Your task to perform on an android device: change keyboard looks Image 0: 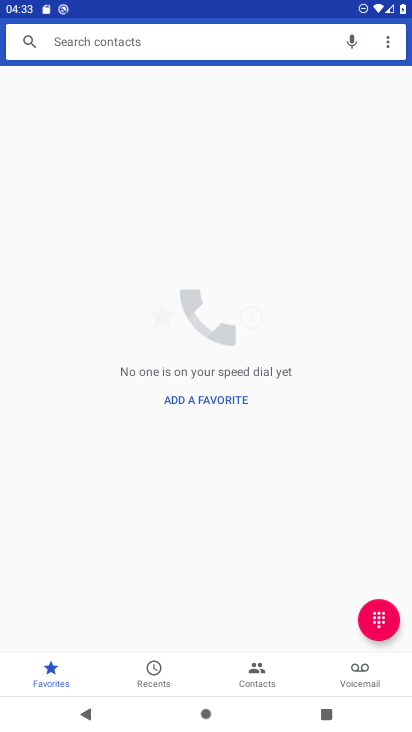
Step 0: press home button
Your task to perform on an android device: change keyboard looks Image 1: 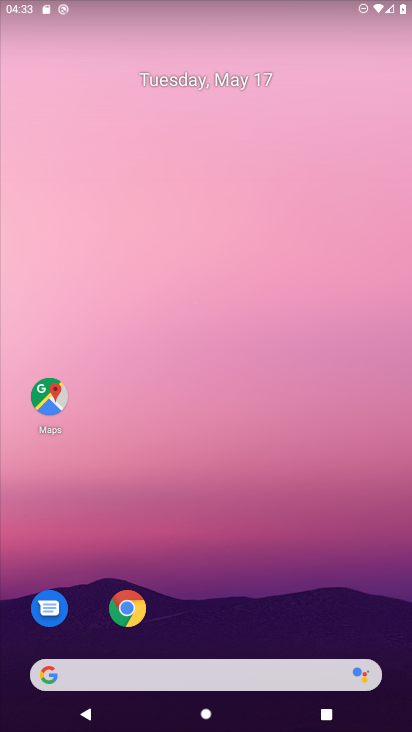
Step 1: drag from (156, 654) to (286, 88)
Your task to perform on an android device: change keyboard looks Image 2: 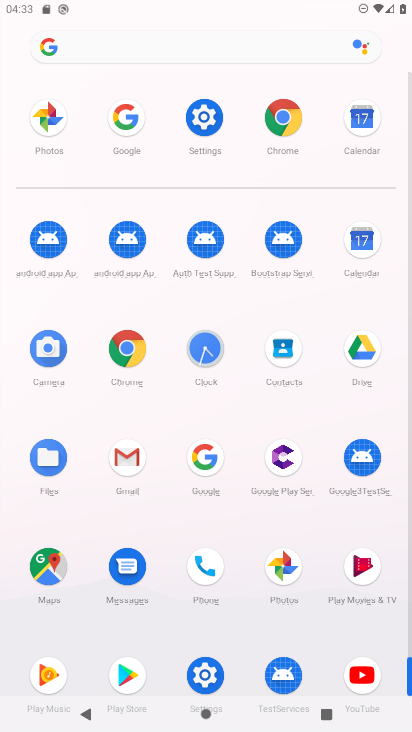
Step 2: click (206, 120)
Your task to perform on an android device: change keyboard looks Image 3: 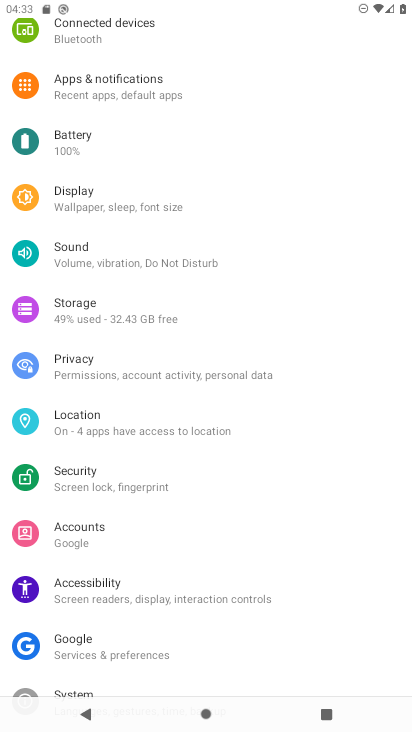
Step 3: drag from (78, 666) to (127, 373)
Your task to perform on an android device: change keyboard looks Image 4: 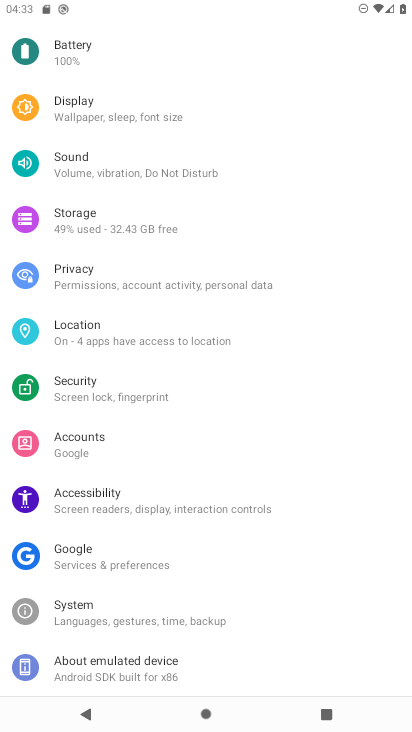
Step 4: click (105, 623)
Your task to perform on an android device: change keyboard looks Image 5: 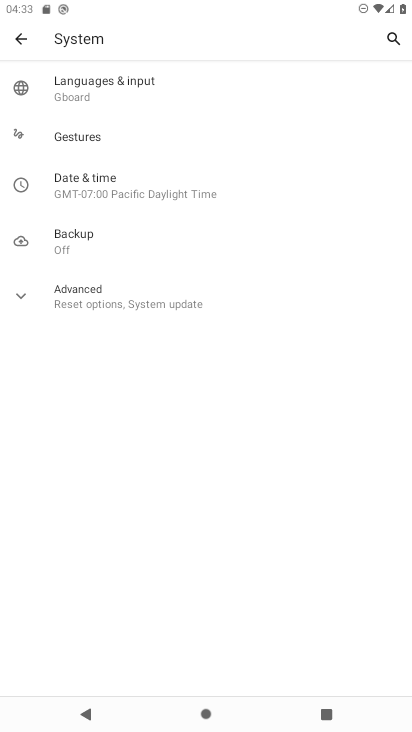
Step 5: click (110, 81)
Your task to perform on an android device: change keyboard looks Image 6: 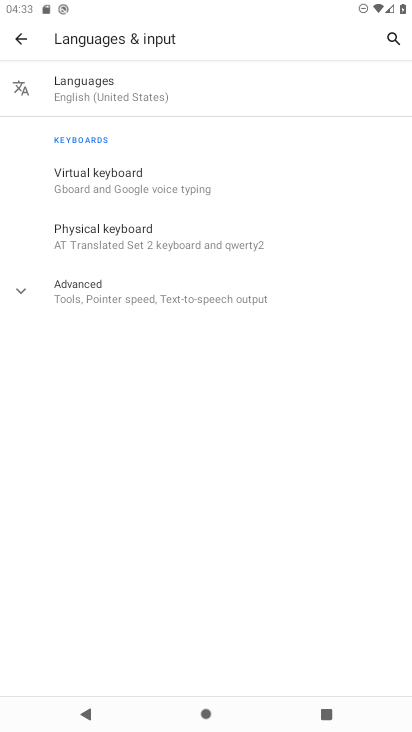
Step 6: click (98, 175)
Your task to perform on an android device: change keyboard looks Image 7: 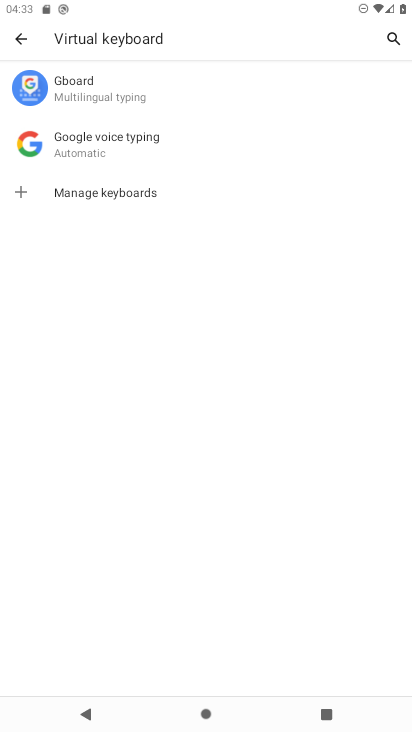
Step 7: click (84, 92)
Your task to perform on an android device: change keyboard looks Image 8: 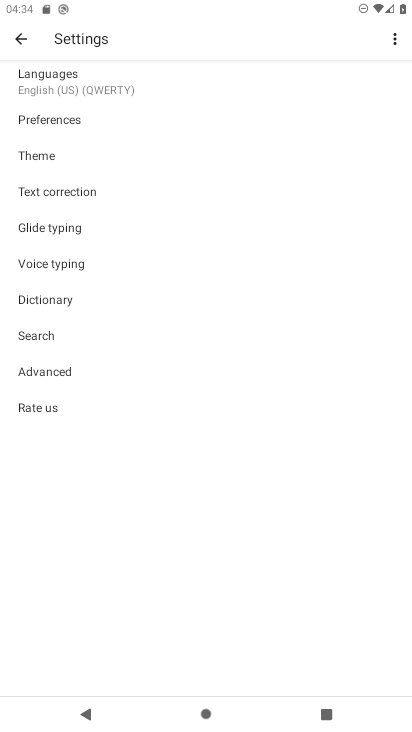
Step 8: click (31, 153)
Your task to perform on an android device: change keyboard looks Image 9: 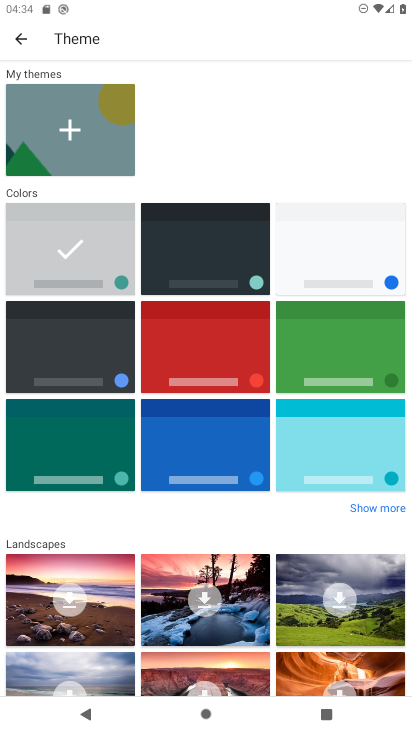
Step 9: click (205, 248)
Your task to perform on an android device: change keyboard looks Image 10: 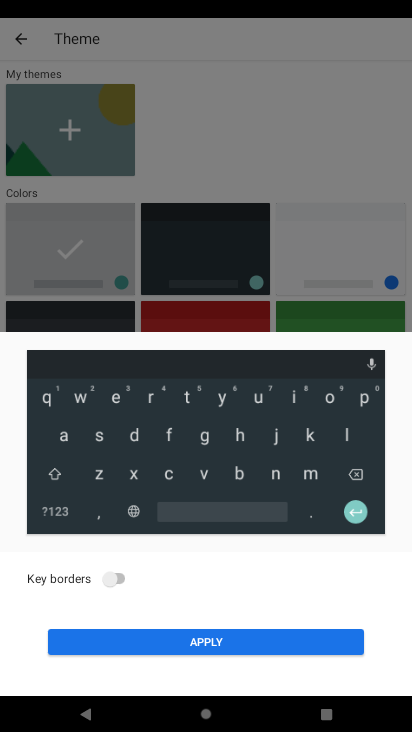
Step 10: click (206, 643)
Your task to perform on an android device: change keyboard looks Image 11: 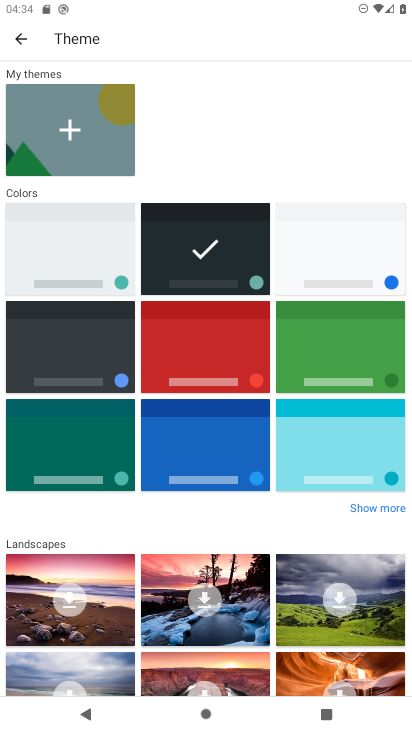
Step 11: task complete